Your task to perform on an android device: install app "HBO Max: Stream TV & Movies" Image 0: 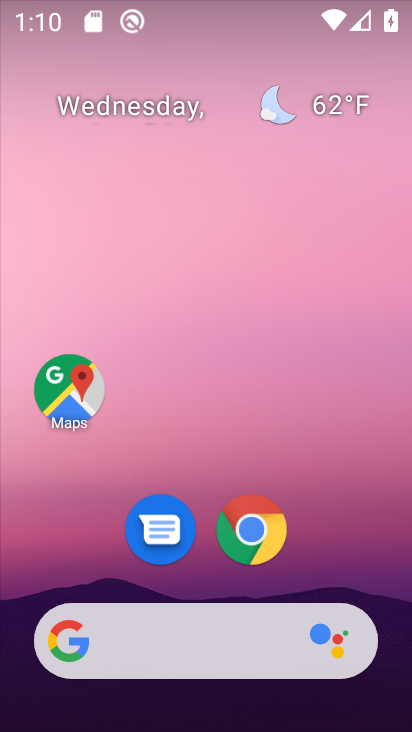
Step 0: drag from (242, 220) to (248, 175)
Your task to perform on an android device: install app "HBO Max: Stream TV & Movies" Image 1: 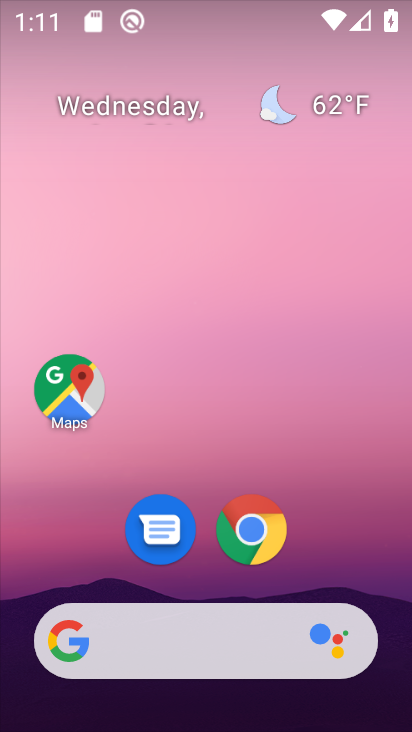
Step 1: drag from (216, 570) to (257, 52)
Your task to perform on an android device: install app "HBO Max: Stream TV & Movies" Image 2: 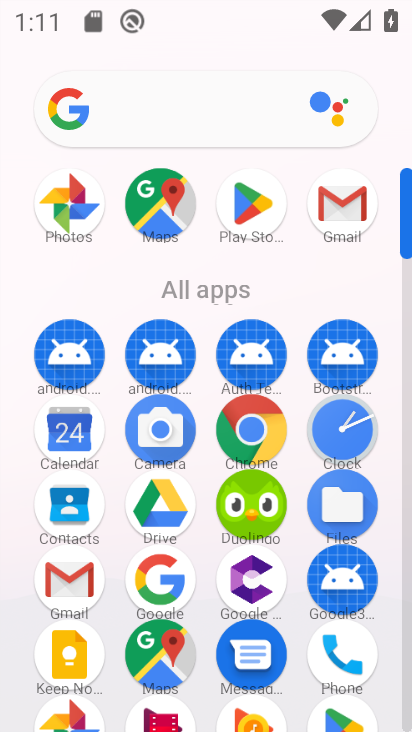
Step 2: click (236, 218)
Your task to perform on an android device: install app "HBO Max: Stream TV & Movies" Image 3: 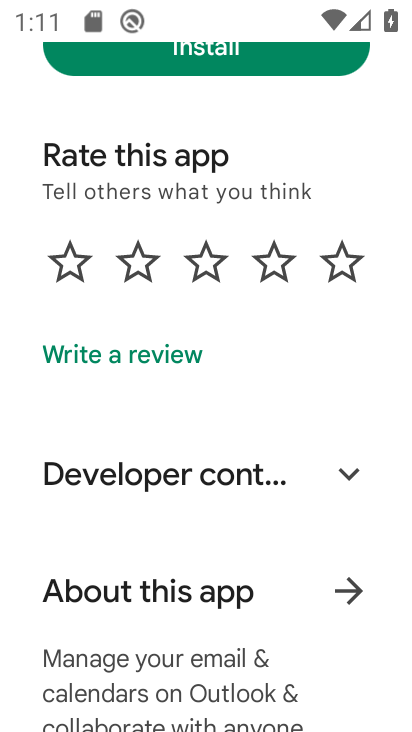
Step 3: drag from (39, 63) to (58, 535)
Your task to perform on an android device: install app "HBO Max: Stream TV & Movies" Image 4: 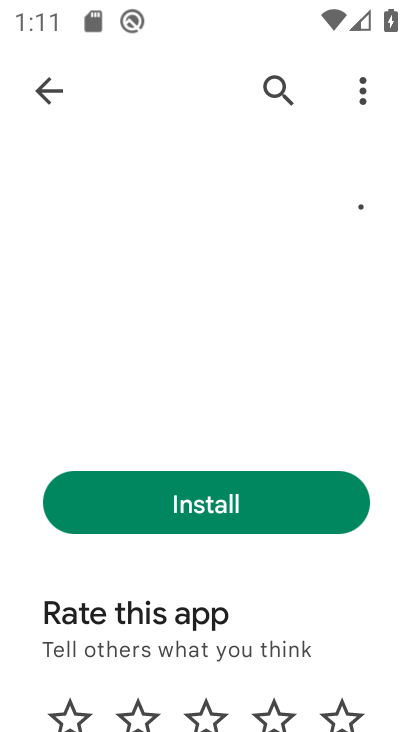
Step 4: click (37, 79)
Your task to perform on an android device: install app "HBO Max: Stream TV & Movies" Image 5: 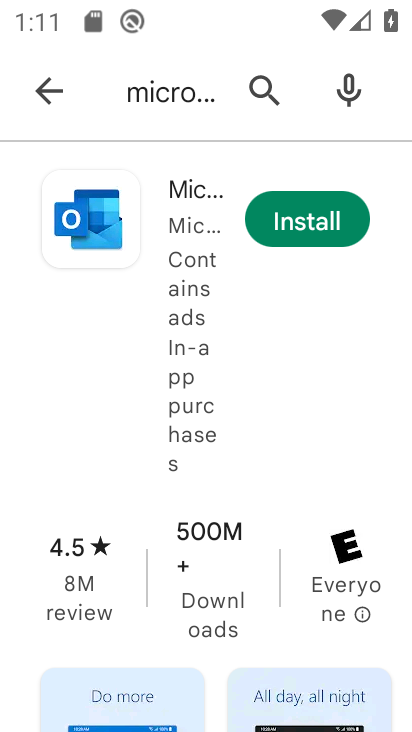
Step 5: click (67, 79)
Your task to perform on an android device: install app "HBO Max: Stream TV & Movies" Image 6: 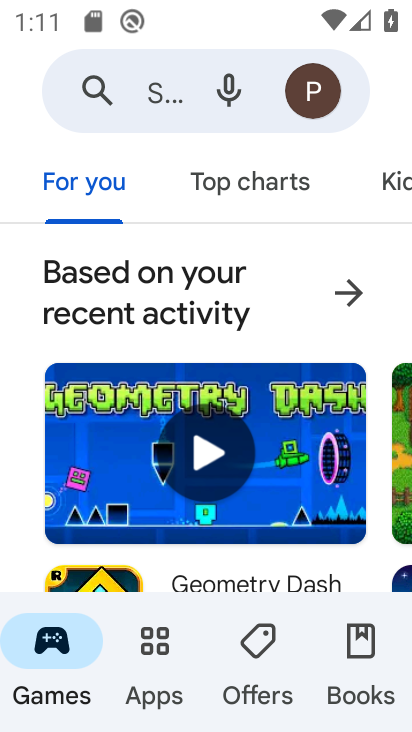
Step 6: click (171, 70)
Your task to perform on an android device: install app "HBO Max: Stream TV & Movies" Image 7: 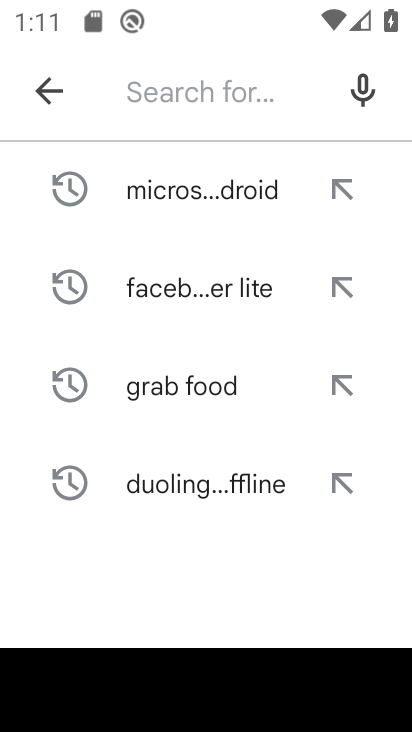
Step 7: type "HBO Max "
Your task to perform on an android device: install app "HBO Max: Stream TV & Movies" Image 8: 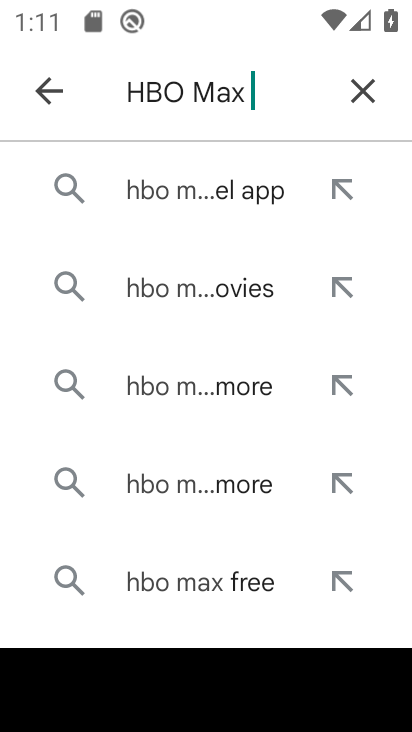
Step 8: click (205, 172)
Your task to perform on an android device: install app "HBO Max: Stream TV & Movies" Image 9: 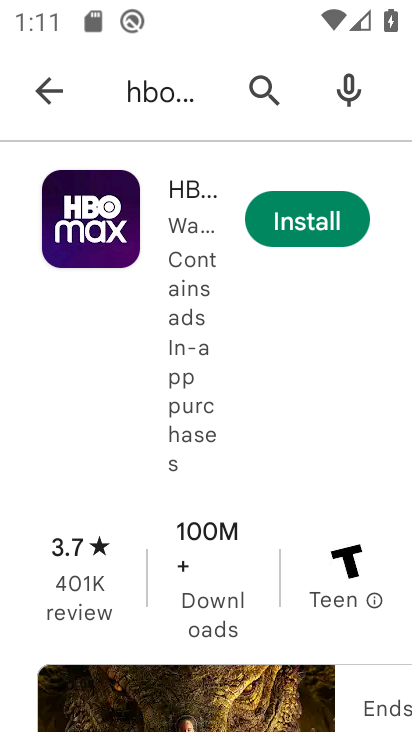
Step 9: click (293, 216)
Your task to perform on an android device: install app "HBO Max: Stream TV & Movies" Image 10: 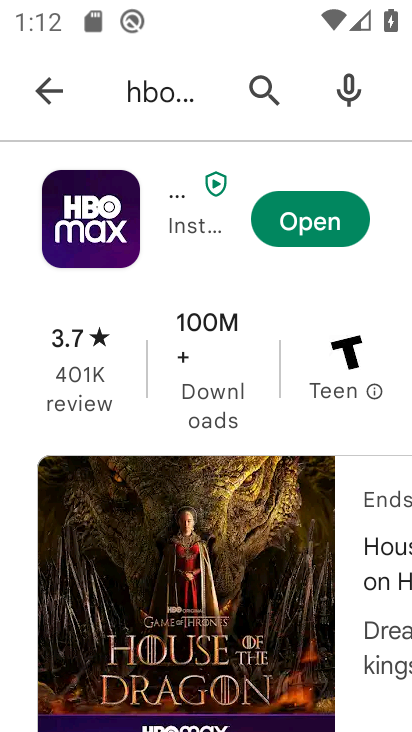
Step 10: task complete